Your task to perform on an android device: Open notification settings Image 0: 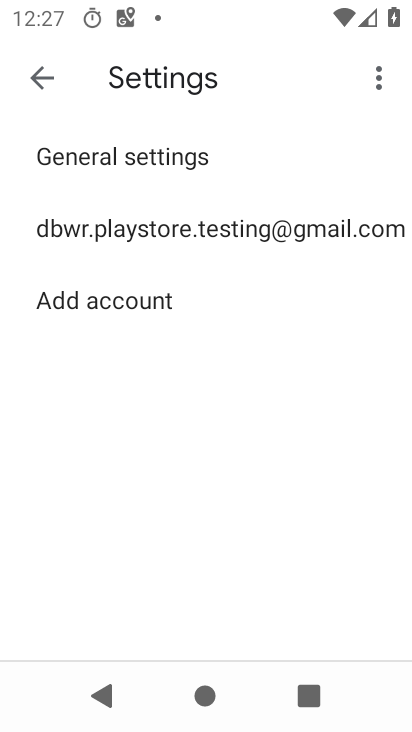
Step 0: press home button
Your task to perform on an android device: Open notification settings Image 1: 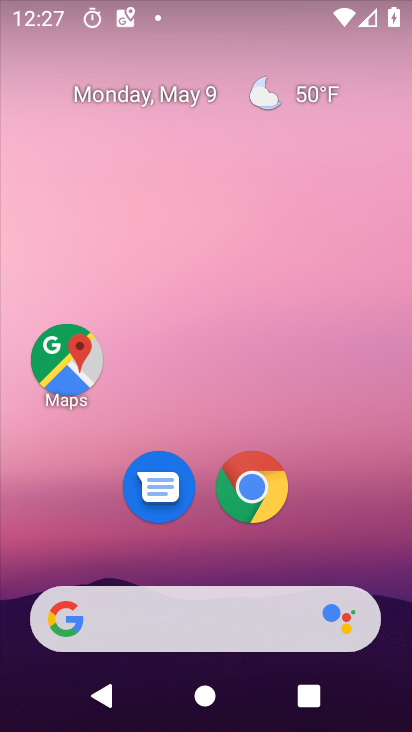
Step 1: drag from (321, 540) to (336, 161)
Your task to perform on an android device: Open notification settings Image 2: 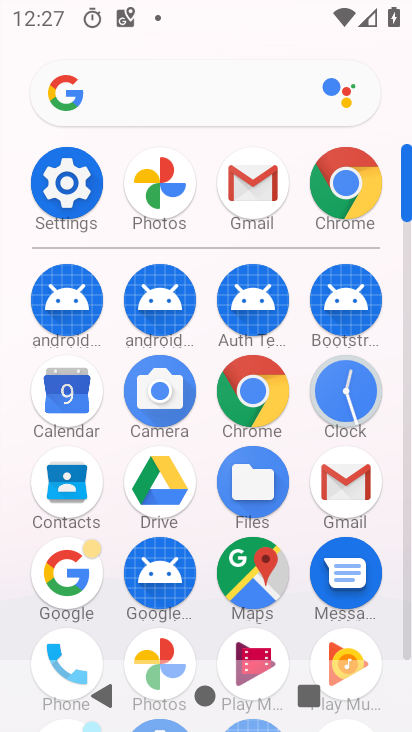
Step 2: click (61, 193)
Your task to perform on an android device: Open notification settings Image 3: 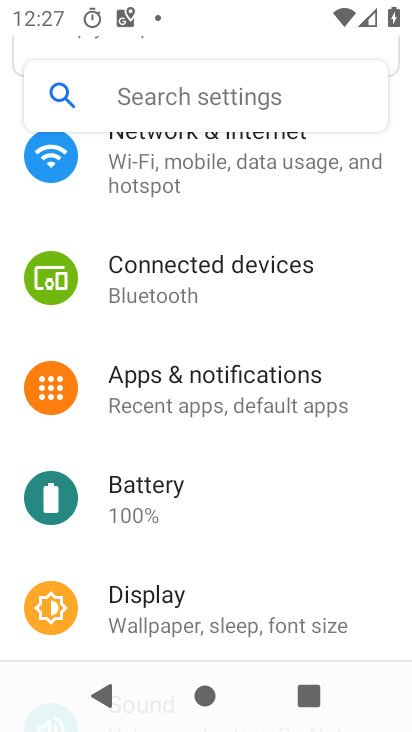
Step 3: click (298, 371)
Your task to perform on an android device: Open notification settings Image 4: 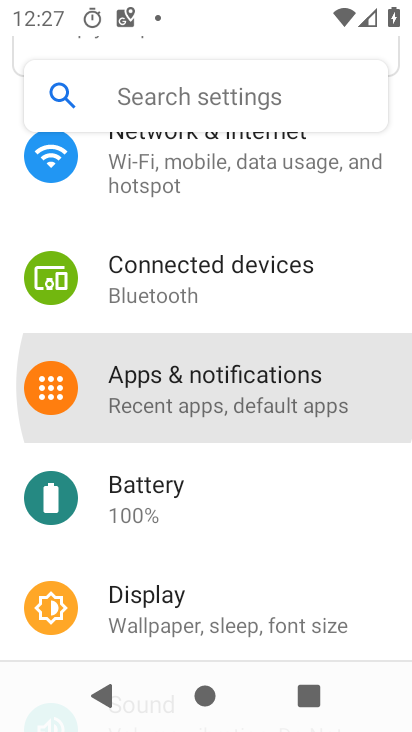
Step 4: drag from (298, 371) to (145, 566)
Your task to perform on an android device: Open notification settings Image 5: 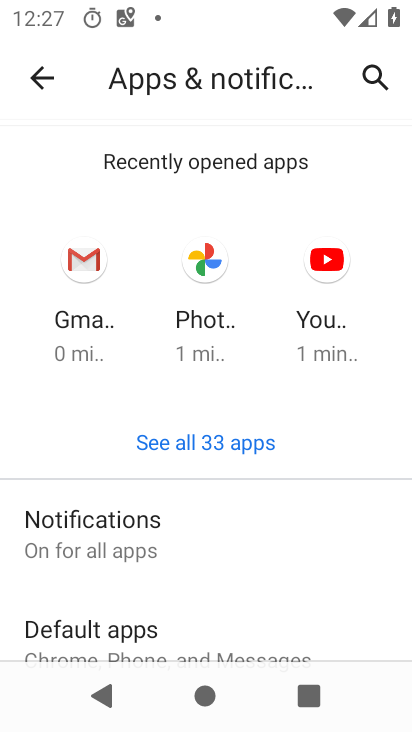
Step 5: click (81, 550)
Your task to perform on an android device: Open notification settings Image 6: 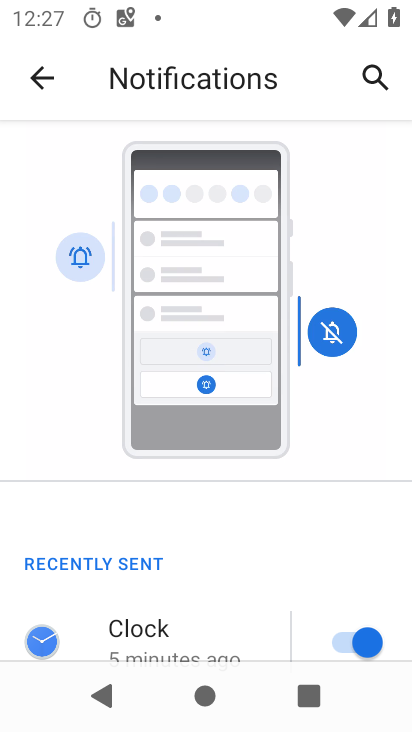
Step 6: task complete